Your task to perform on an android device: turn smart compose on in the gmail app Image 0: 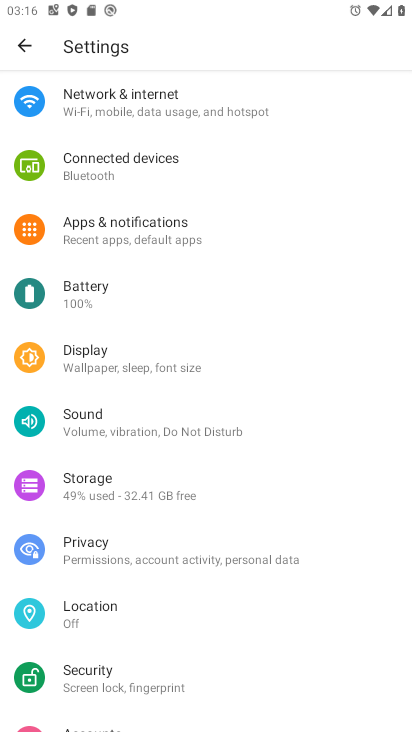
Step 0: press back button
Your task to perform on an android device: turn smart compose on in the gmail app Image 1: 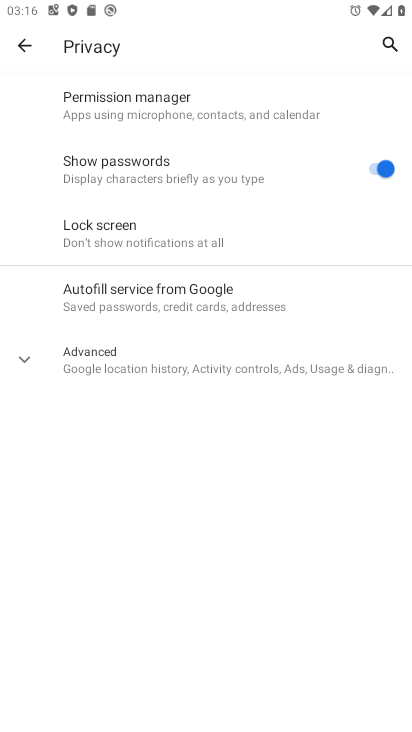
Step 1: press back button
Your task to perform on an android device: turn smart compose on in the gmail app Image 2: 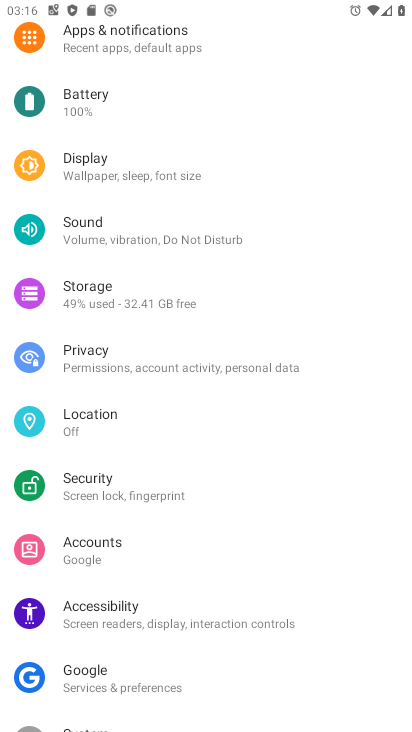
Step 2: press back button
Your task to perform on an android device: turn smart compose on in the gmail app Image 3: 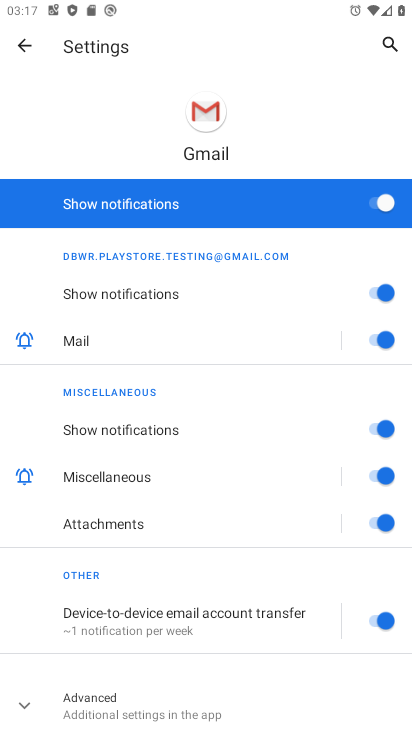
Step 3: drag from (191, 612) to (245, 135)
Your task to perform on an android device: turn smart compose on in the gmail app Image 4: 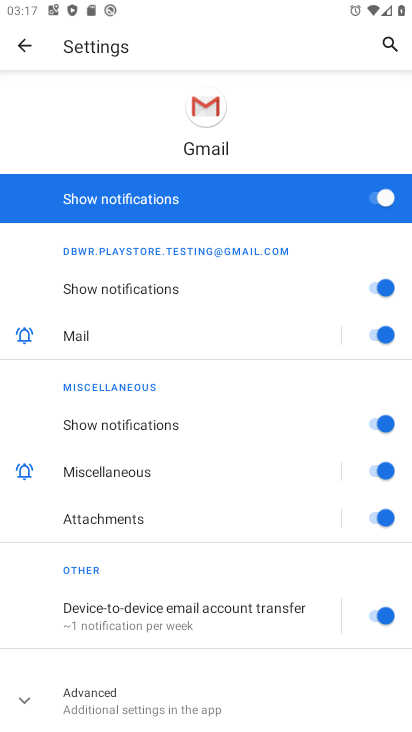
Step 4: drag from (139, 655) to (280, 82)
Your task to perform on an android device: turn smart compose on in the gmail app Image 5: 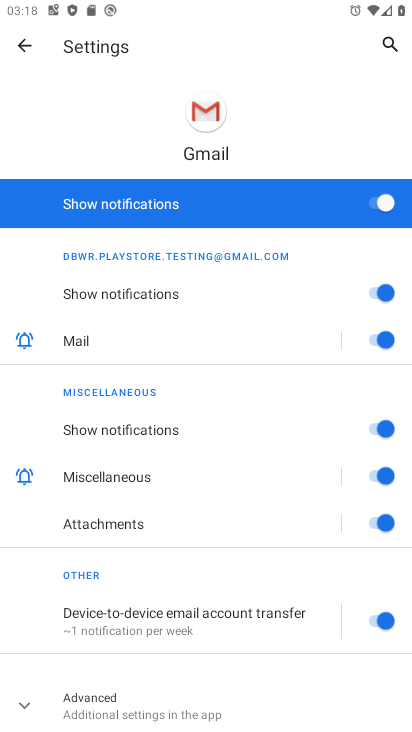
Step 5: press back button
Your task to perform on an android device: turn smart compose on in the gmail app Image 6: 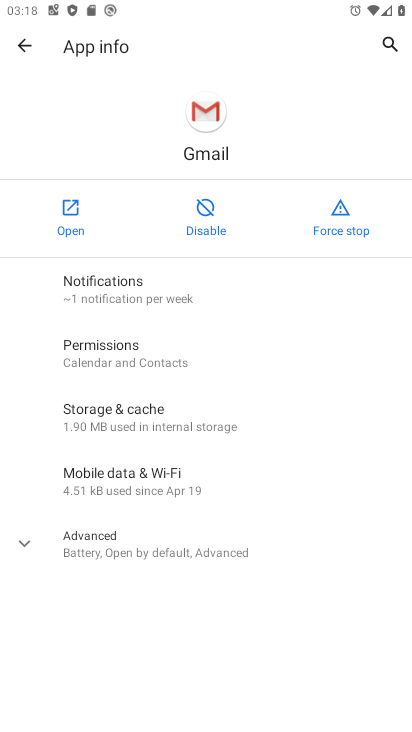
Step 6: press back button
Your task to perform on an android device: turn smart compose on in the gmail app Image 7: 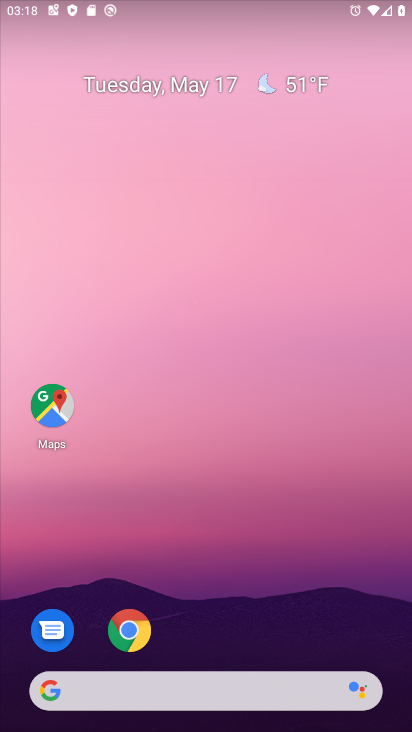
Step 7: drag from (279, 443) to (337, 0)
Your task to perform on an android device: turn smart compose on in the gmail app Image 8: 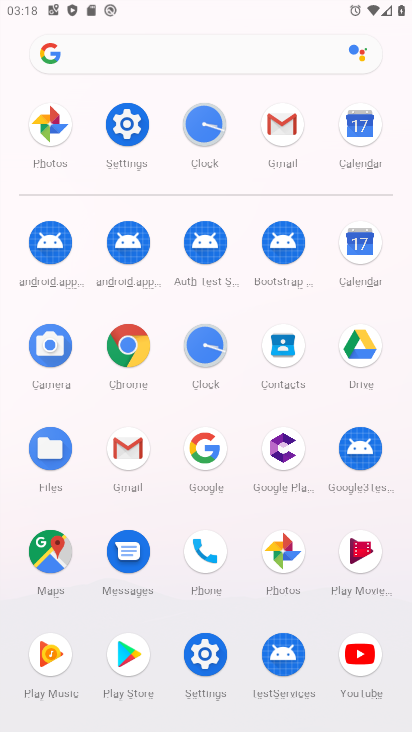
Step 8: click (287, 111)
Your task to perform on an android device: turn smart compose on in the gmail app Image 9: 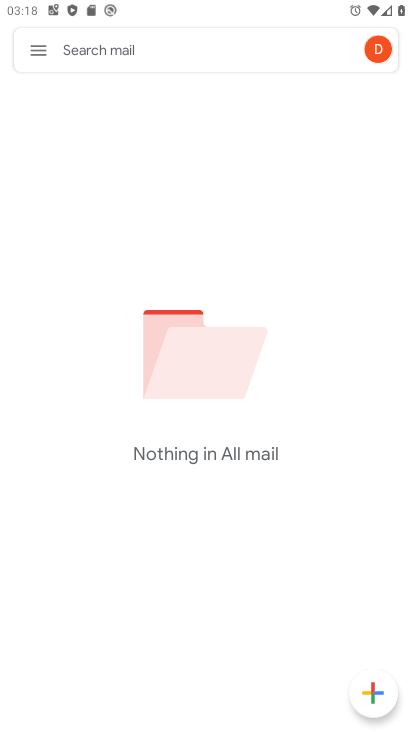
Step 9: click (40, 51)
Your task to perform on an android device: turn smart compose on in the gmail app Image 10: 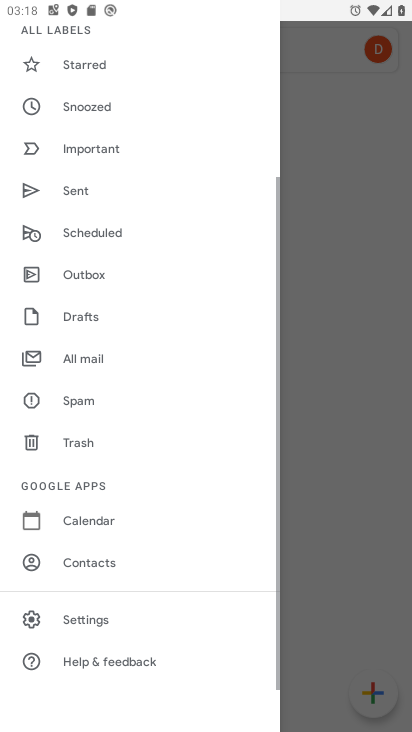
Step 10: click (116, 609)
Your task to perform on an android device: turn smart compose on in the gmail app Image 11: 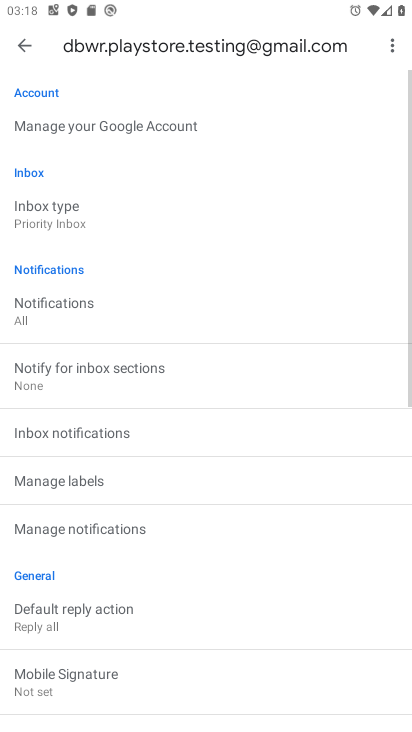
Step 11: task complete